Your task to perform on an android device: open wifi settings Image 0: 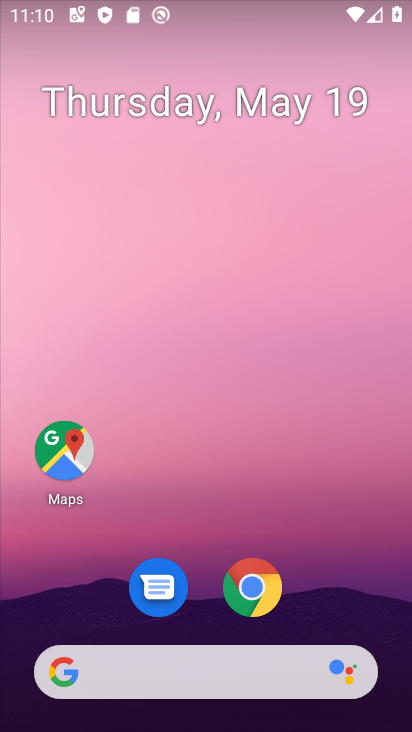
Step 0: drag from (214, 677) to (154, 97)
Your task to perform on an android device: open wifi settings Image 1: 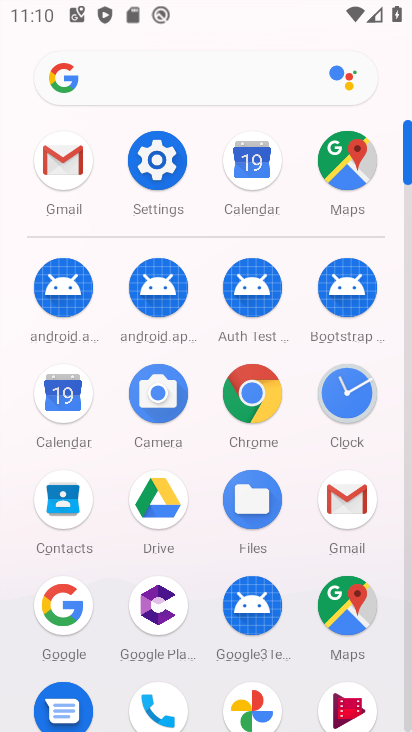
Step 1: click (166, 161)
Your task to perform on an android device: open wifi settings Image 2: 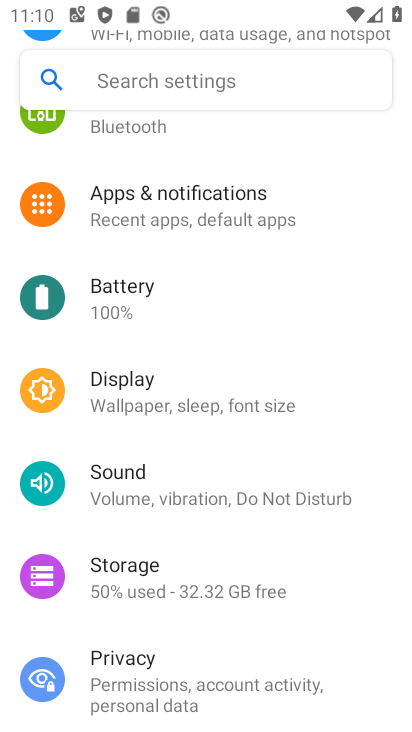
Step 2: drag from (132, 153) to (166, 598)
Your task to perform on an android device: open wifi settings Image 3: 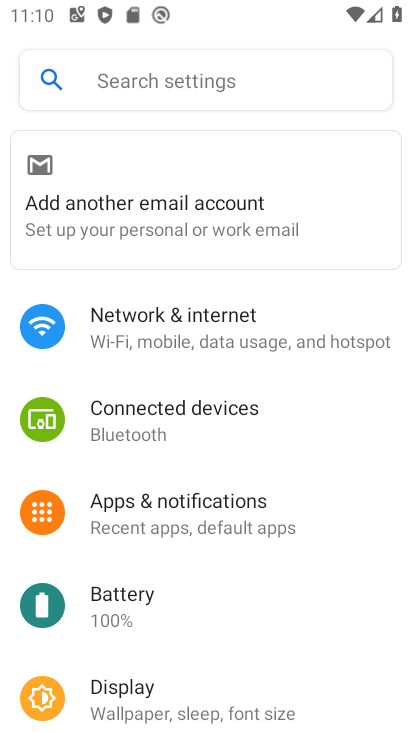
Step 3: click (176, 332)
Your task to perform on an android device: open wifi settings Image 4: 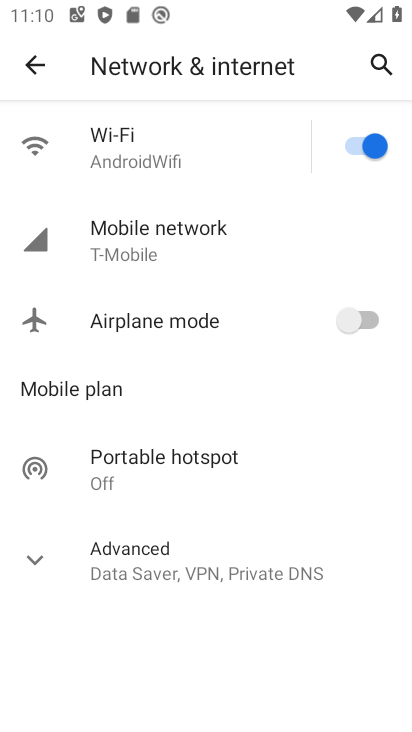
Step 4: click (139, 163)
Your task to perform on an android device: open wifi settings Image 5: 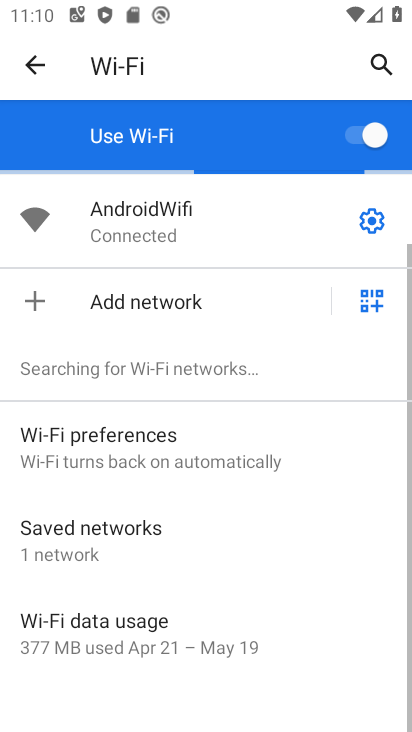
Step 5: task complete